Your task to perform on an android device: Check the news Image 0: 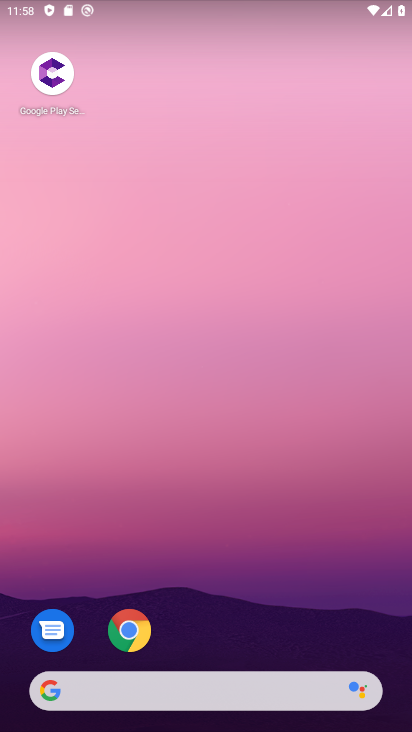
Step 0: click (47, 688)
Your task to perform on an android device: Check the news Image 1: 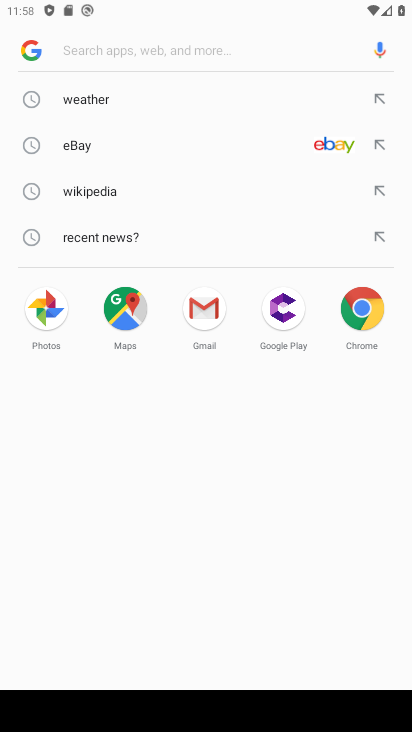
Step 1: type "news"
Your task to perform on an android device: Check the news Image 2: 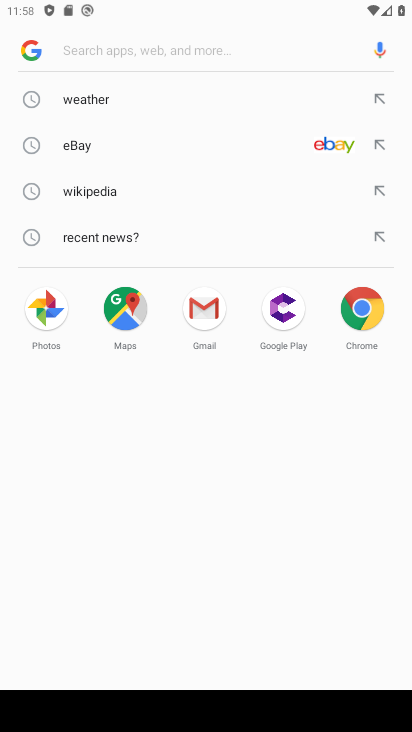
Step 2: click (102, 47)
Your task to perform on an android device: Check the news Image 3: 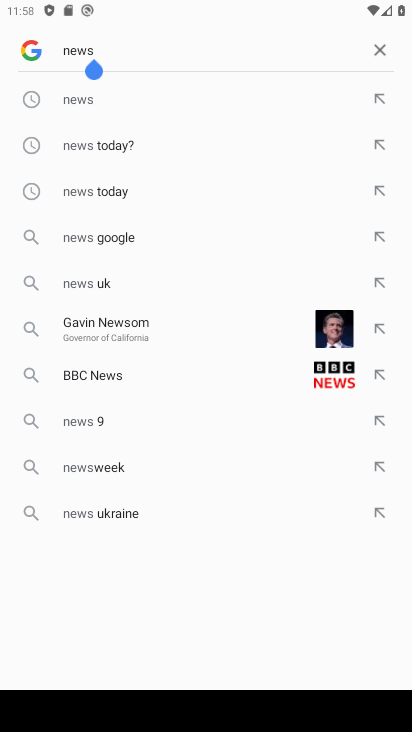
Step 3: press enter
Your task to perform on an android device: Check the news Image 4: 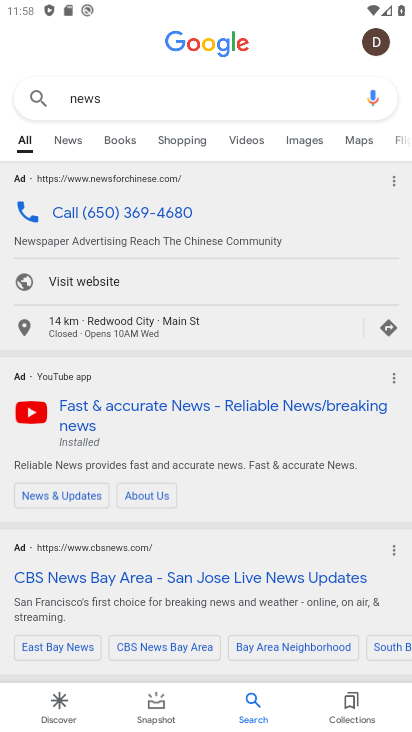
Step 4: task complete